Your task to perform on an android device: stop showing notifications on the lock screen Image 0: 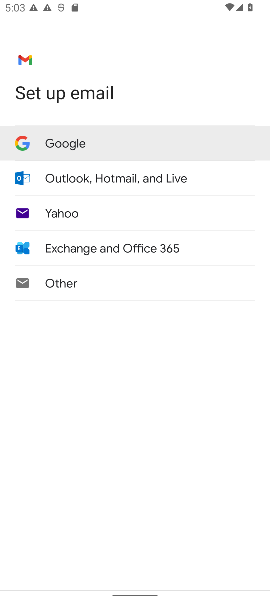
Step 0: press home button
Your task to perform on an android device: stop showing notifications on the lock screen Image 1: 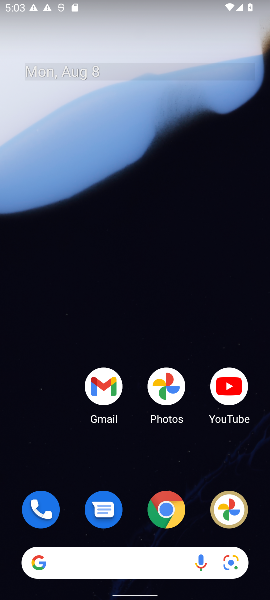
Step 1: drag from (138, 467) to (131, 121)
Your task to perform on an android device: stop showing notifications on the lock screen Image 2: 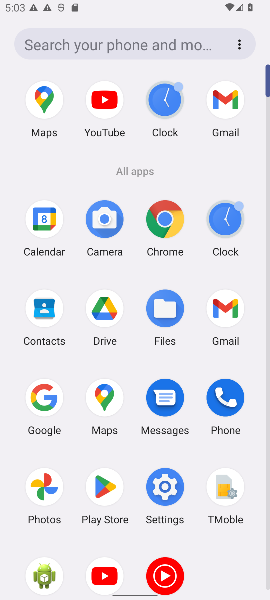
Step 2: click (164, 488)
Your task to perform on an android device: stop showing notifications on the lock screen Image 3: 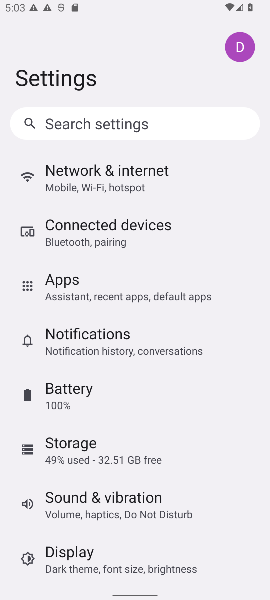
Step 3: click (100, 331)
Your task to perform on an android device: stop showing notifications on the lock screen Image 4: 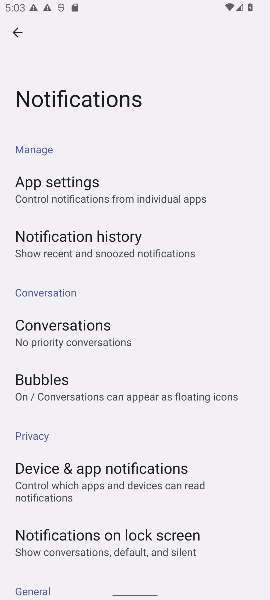
Step 4: click (108, 537)
Your task to perform on an android device: stop showing notifications on the lock screen Image 5: 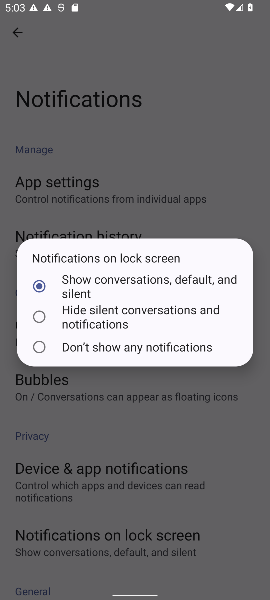
Step 5: click (38, 346)
Your task to perform on an android device: stop showing notifications on the lock screen Image 6: 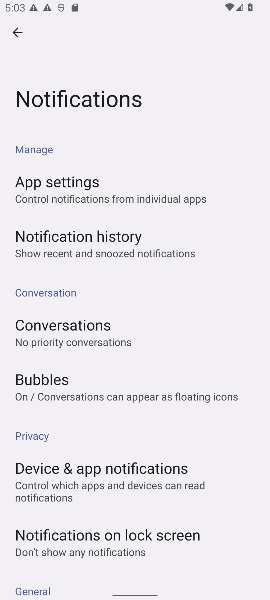
Step 6: task complete